Your task to perform on an android device: Go to Yahoo.com Image 0: 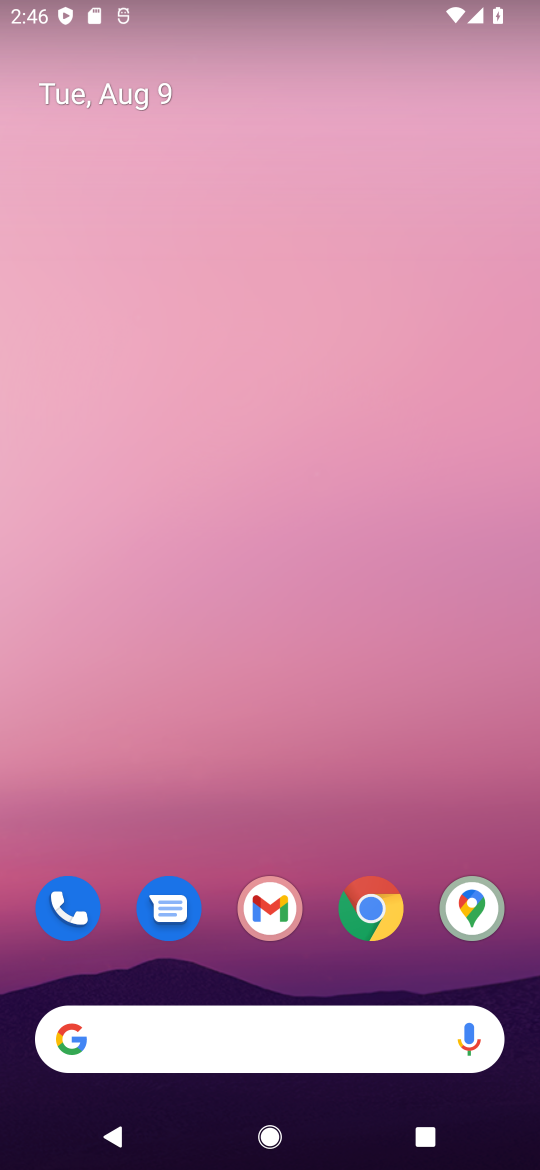
Step 0: drag from (342, 1000) to (246, 329)
Your task to perform on an android device: Go to Yahoo.com Image 1: 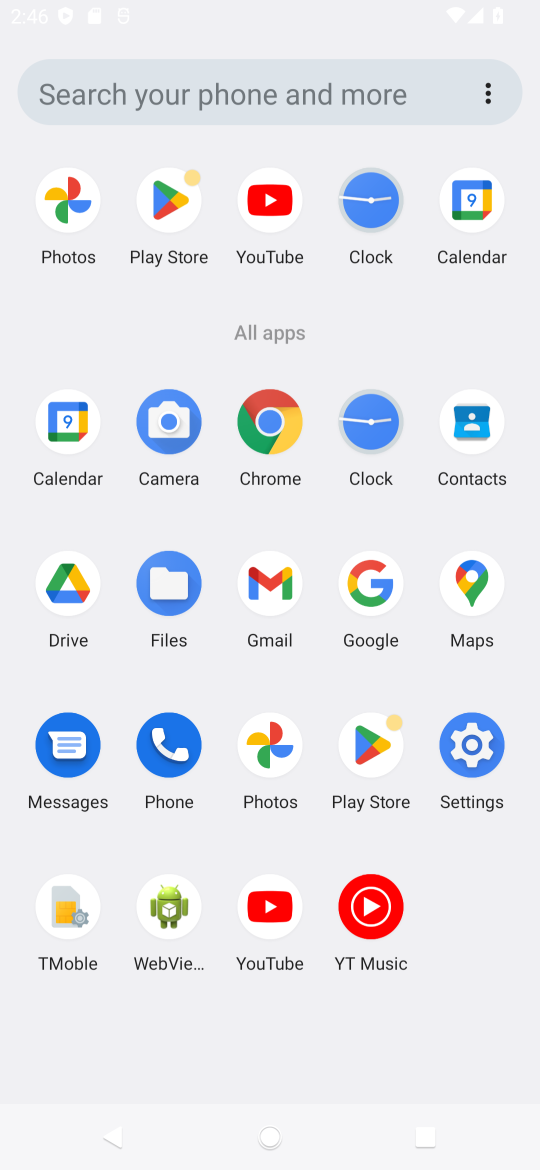
Step 1: click (281, 241)
Your task to perform on an android device: Go to Yahoo.com Image 2: 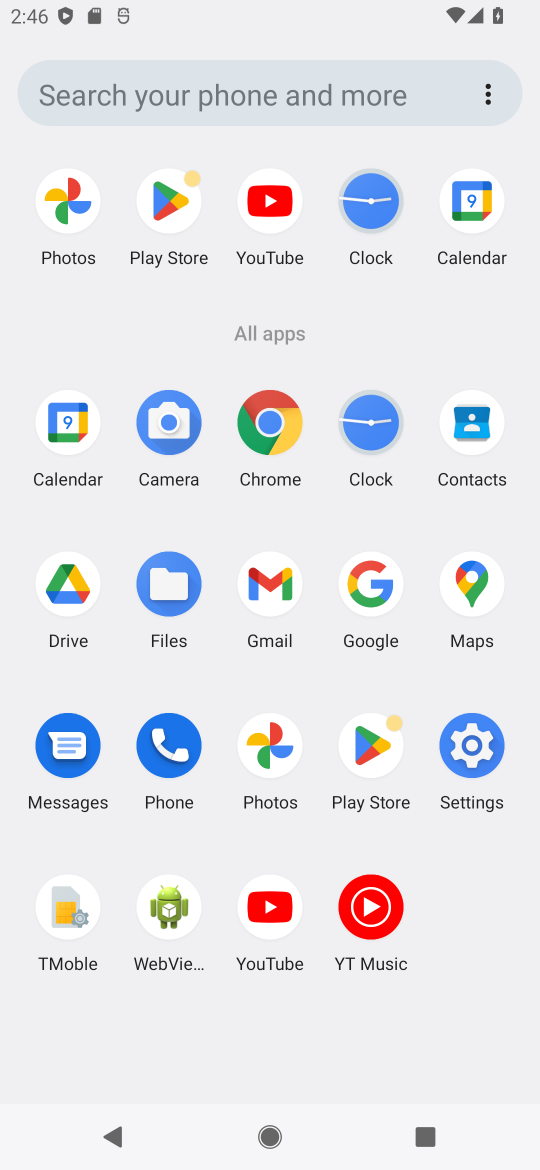
Step 2: drag from (291, 783) to (247, 444)
Your task to perform on an android device: Go to Yahoo.com Image 3: 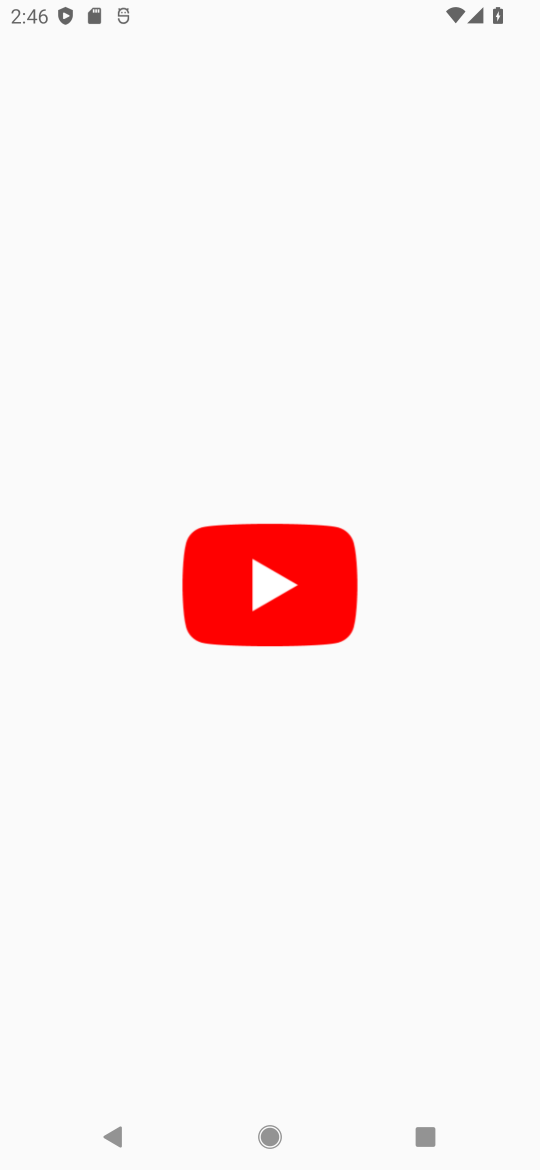
Step 3: press back button
Your task to perform on an android device: Go to Yahoo.com Image 4: 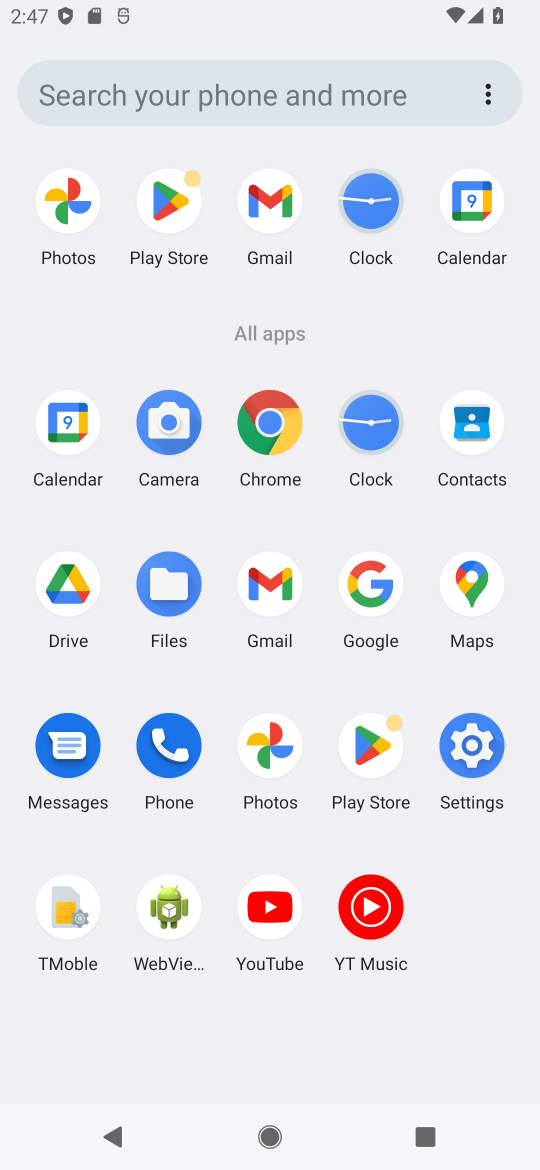
Step 4: click (241, 444)
Your task to perform on an android device: Go to Yahoo.com Image 5: 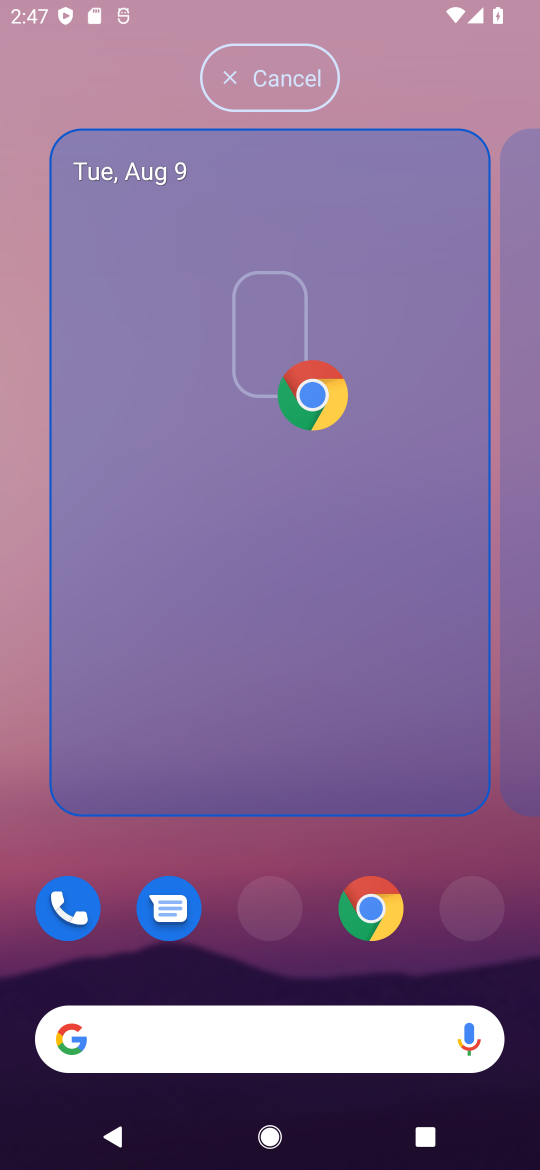
Step 5: click (286, 422)
Your task to perform on an android device: Go to Yahoo.com Image 6: 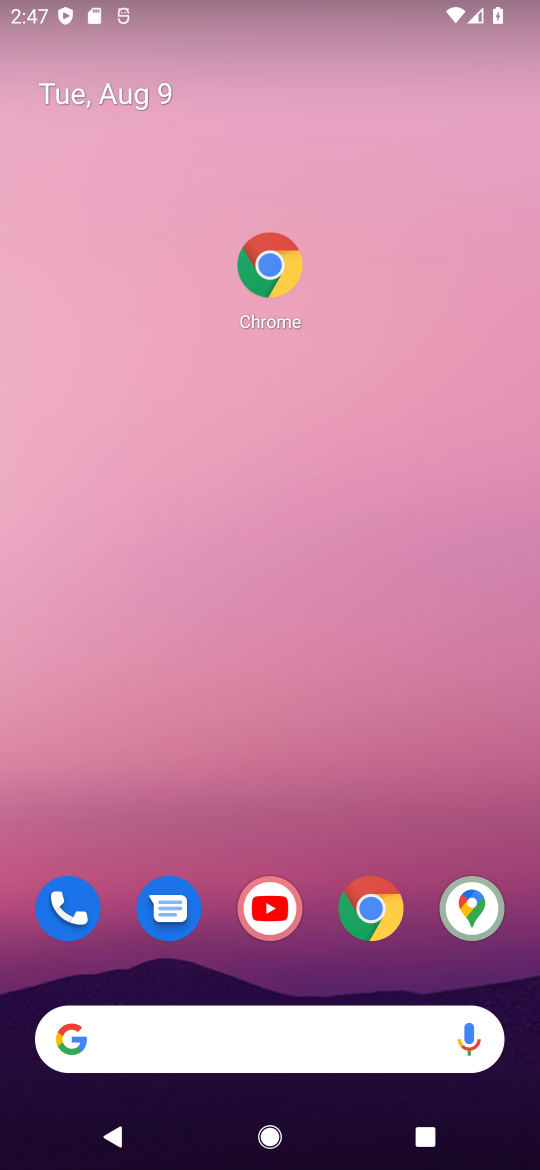
Step 6: click (373, 897)
Your task to perform on an android device: Go to Yahoo.com Image 7: 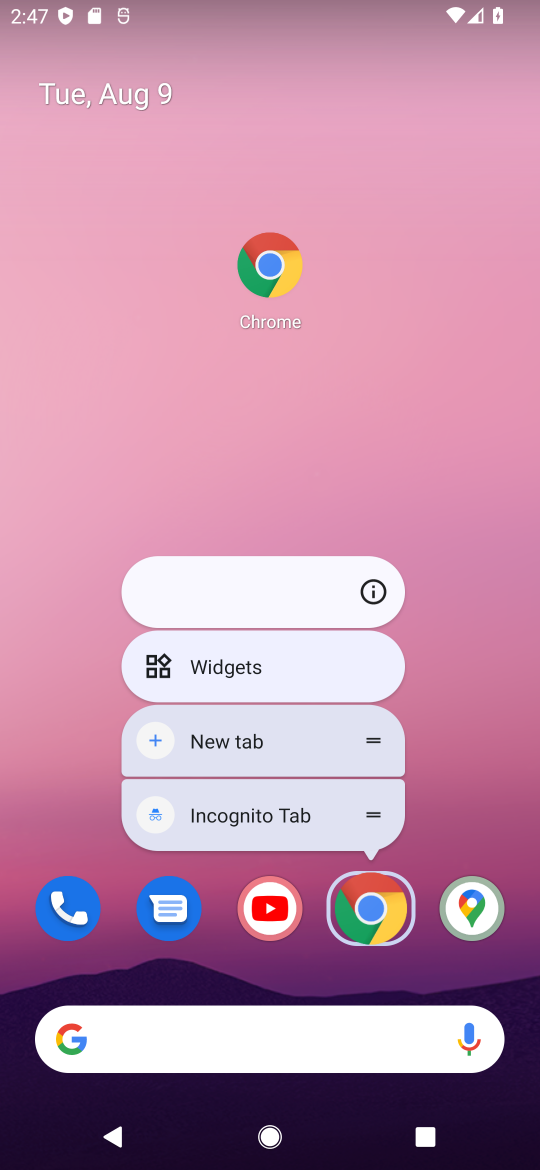
Step 7: click (364, 906)
Your task to perform on an android device: Go to Yahoo.com Image 8: 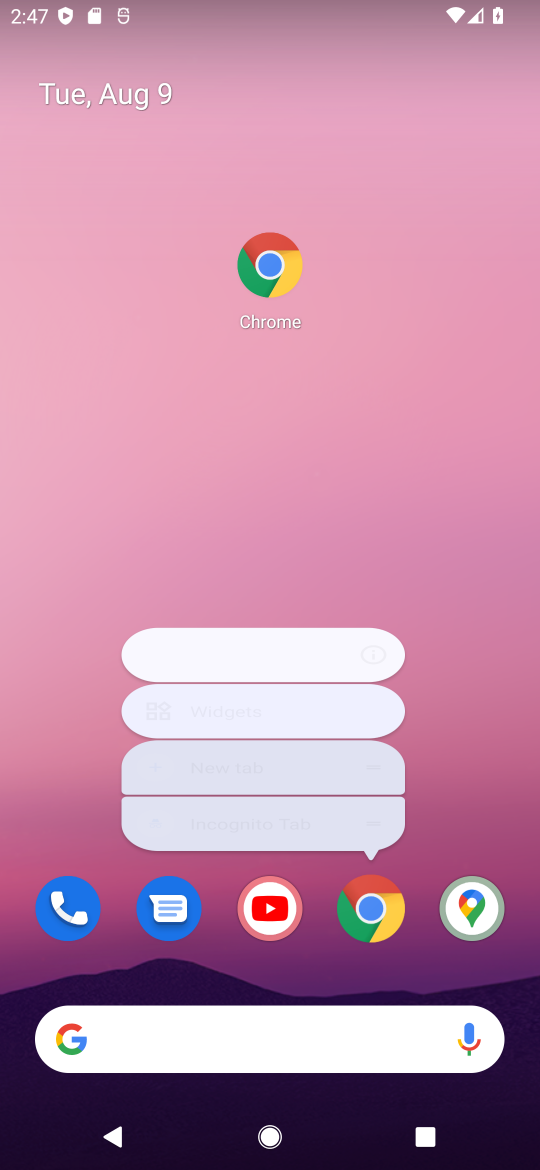
Step 8: click (364, 906)
Your task to perform on an android device: Go to Yahoo.com Image 9: 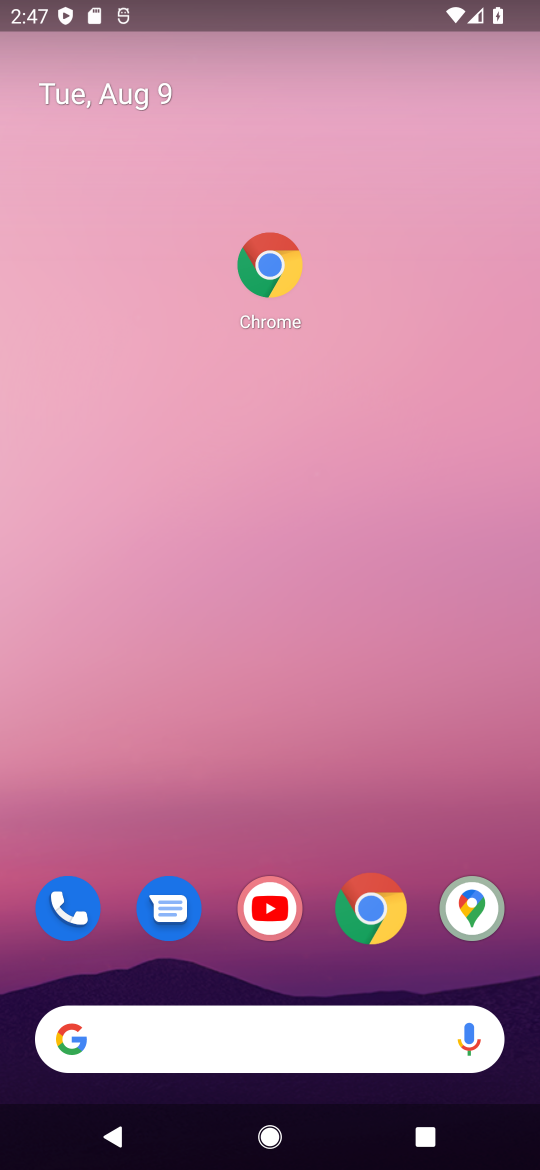
Step 9: click (364, 906)
Your task to perform on an android device: Go to Yahoo.com Image 10: 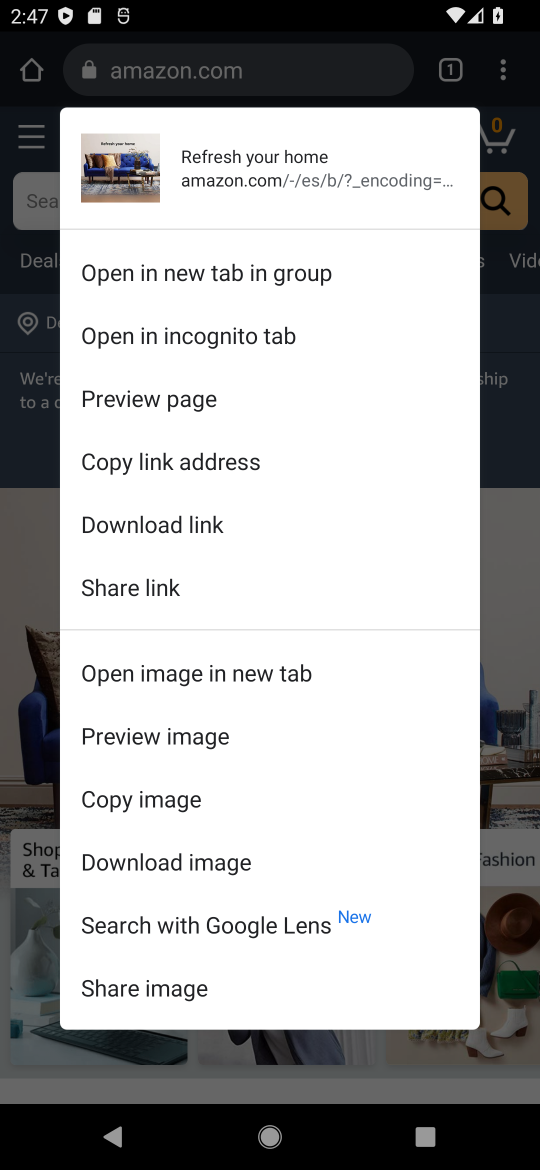
Step 10: click (171, 277)
Your task to perform on an android device: Go to Yahoo.com Image 11: 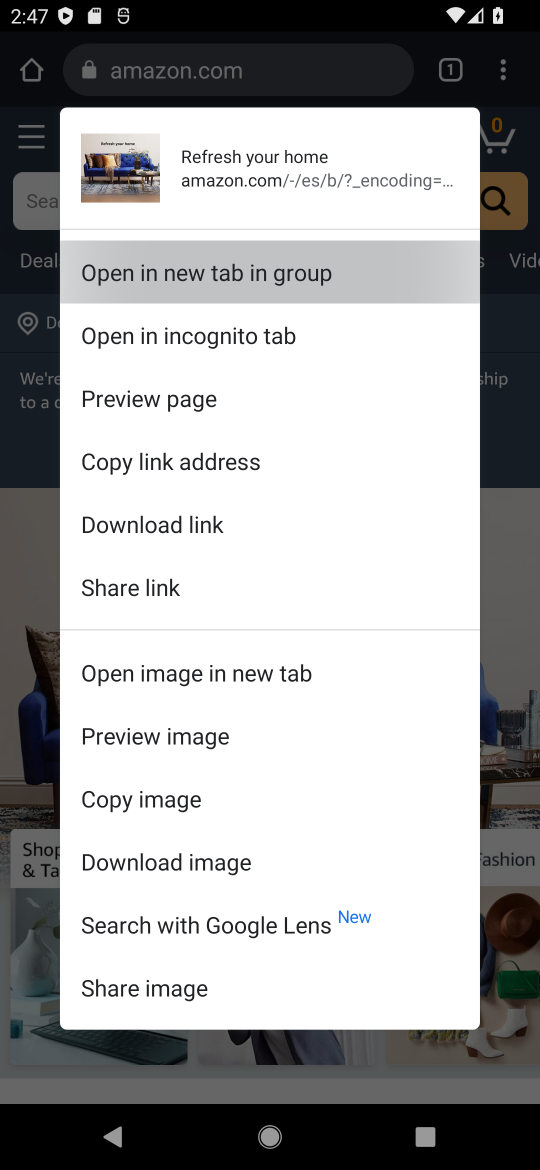
Step 11: click (174, 277)
Your task to perform on an android device: Go to Yahoo.com Image 12: 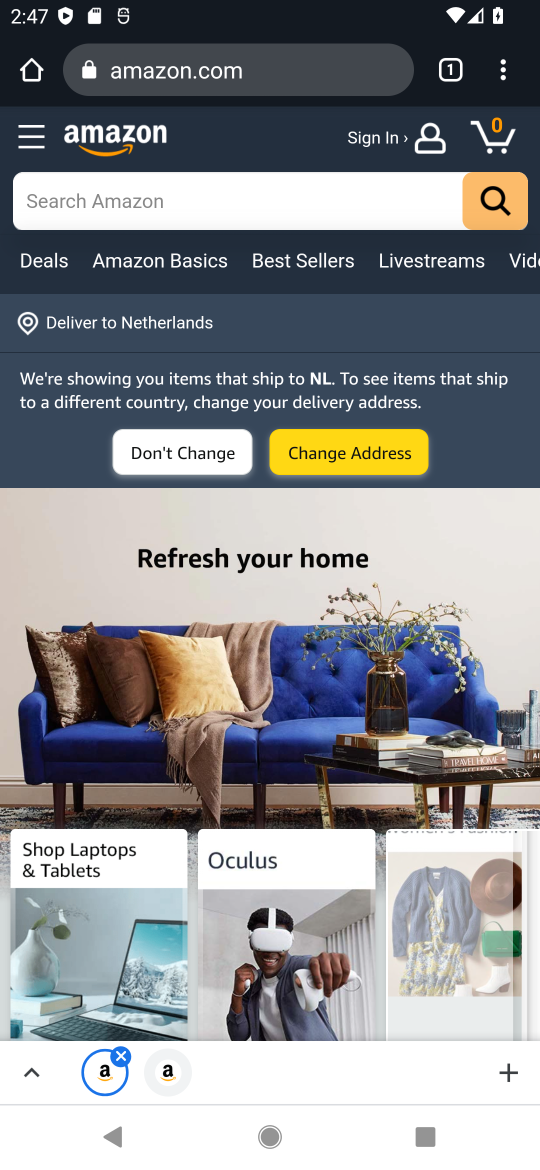
Step 12: click (181, 276)
Your task to perform on an android device: Go to Yahoo.com Image 13: 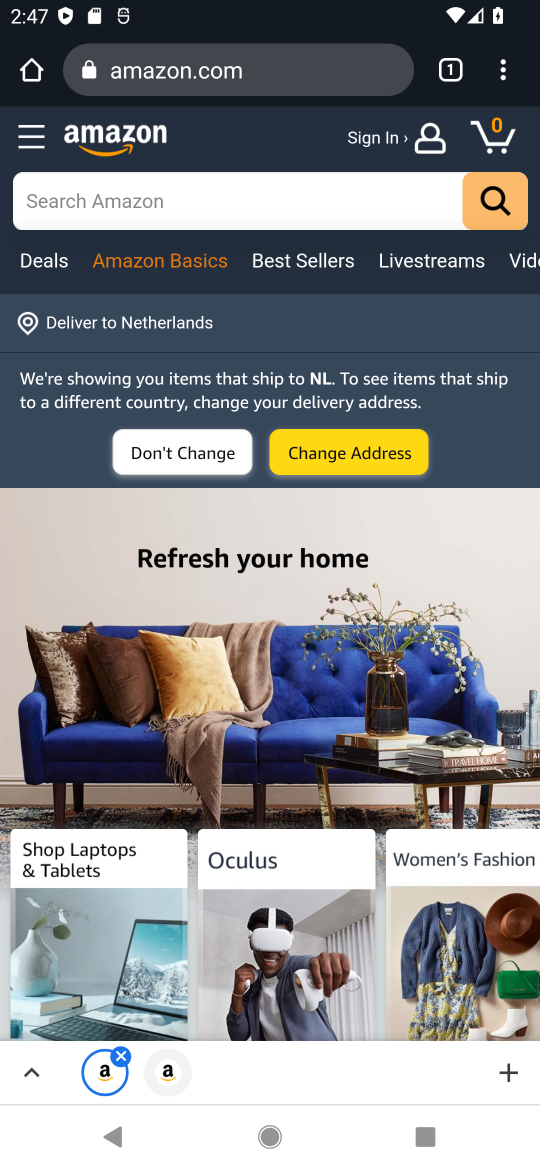
Step 13: click (91, 190)
Your task to perform on an android device: Go to Yahoo.com Image 14: 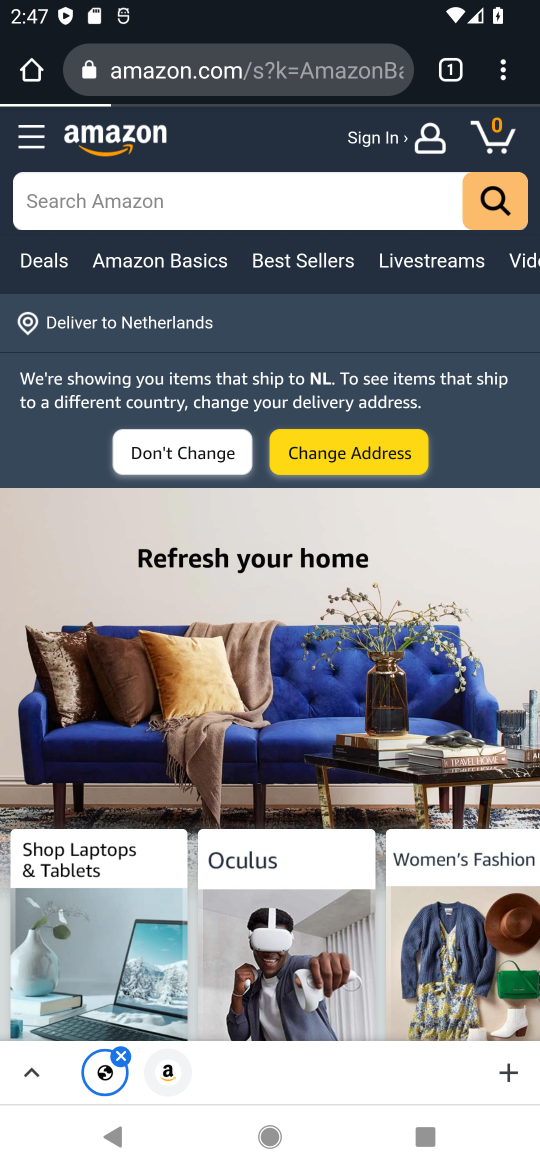
Step 14: drag from (498, 77) to (302, 138)
Your task to perform on an android device: Go to Yahoo.com Image 15: 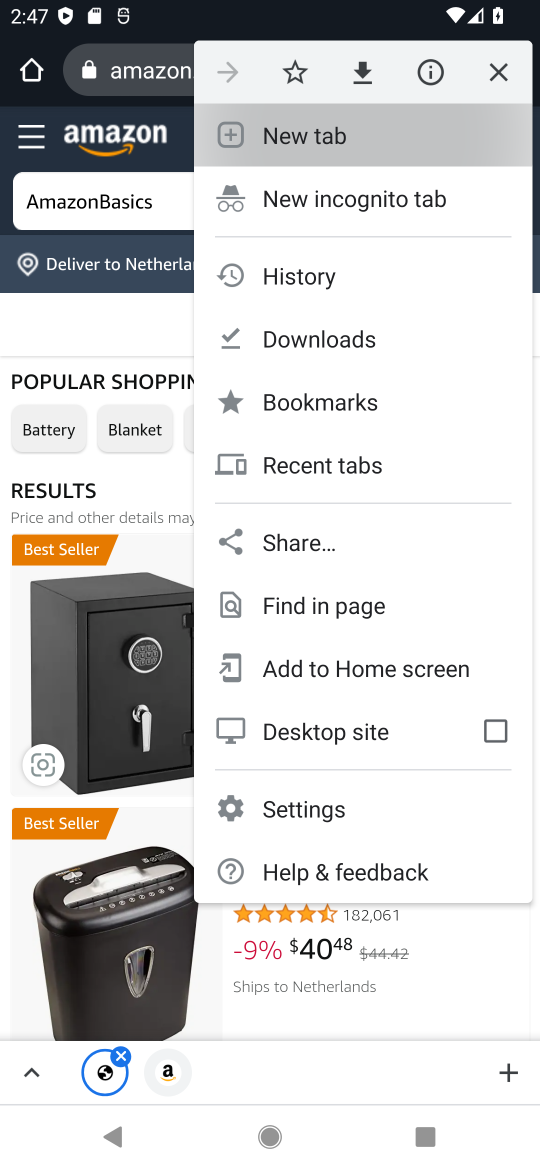
Step 15: click (302, 139)
Your task to perform on an android device: Go to Yahoo.com Image 16: 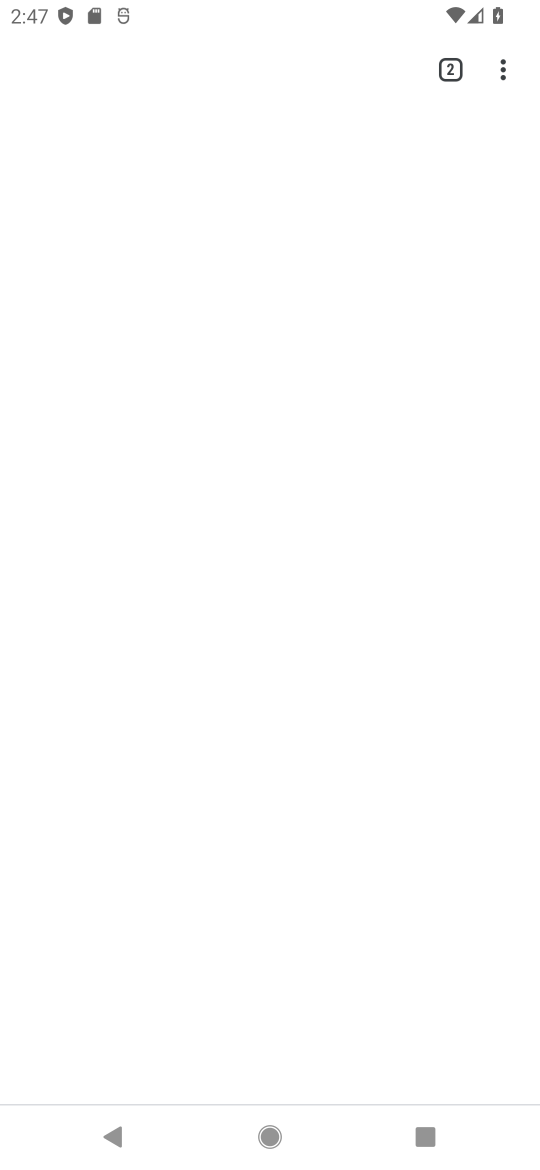
Step 16: click (304, 140)
Your task to perform on an android device: Go to Yahoo.com Image 17: 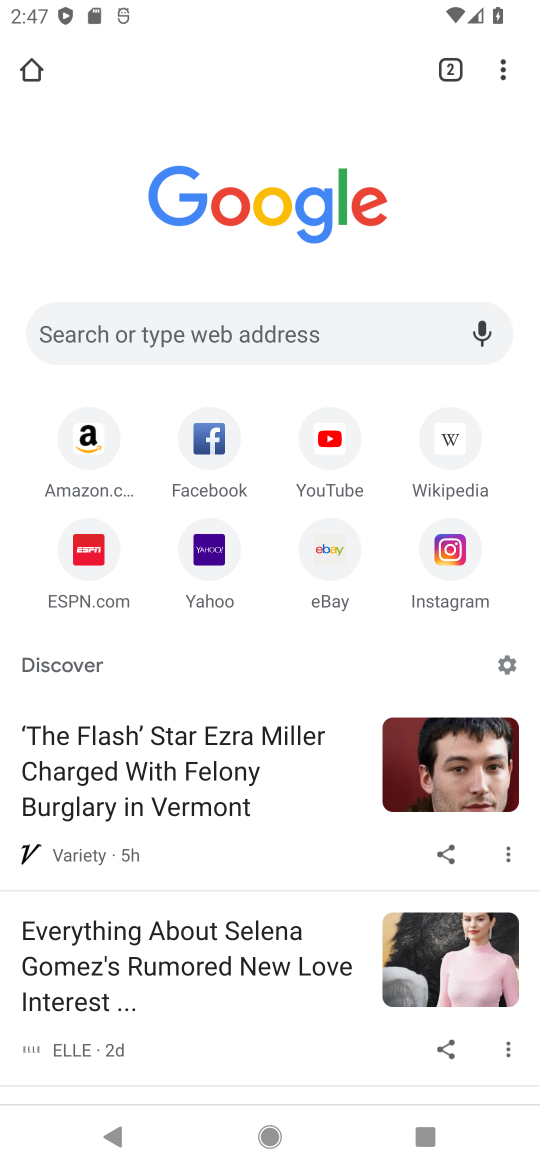
Step 17: click (214, 563)
Your task to perform on an android device: Go to Yahoo.com Image 18: 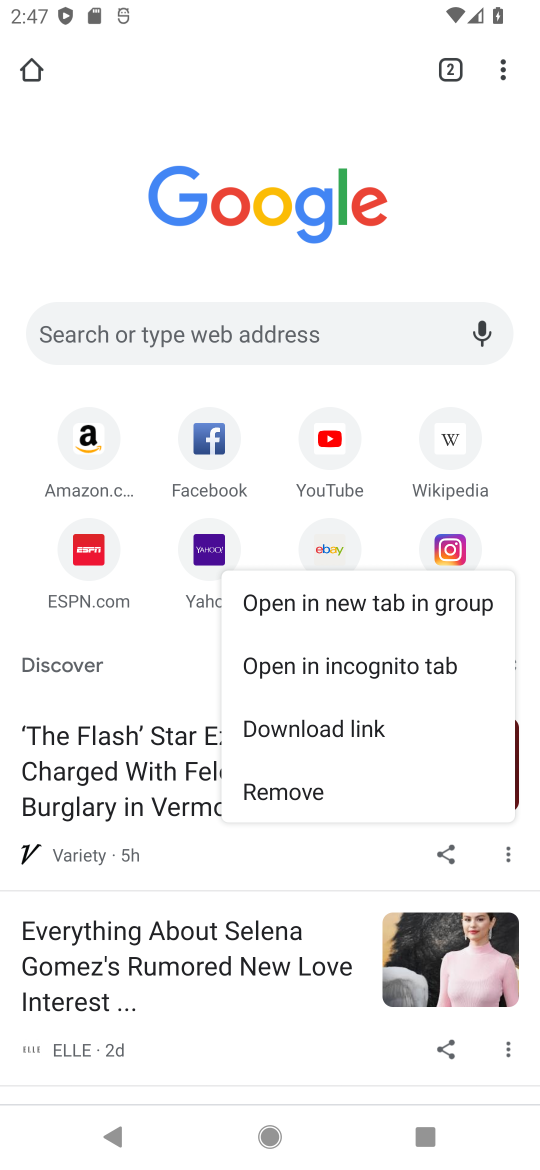
Step 18: click (209, 561)
Your task to perform on an android device: Go to Yahoo.com Image 19: 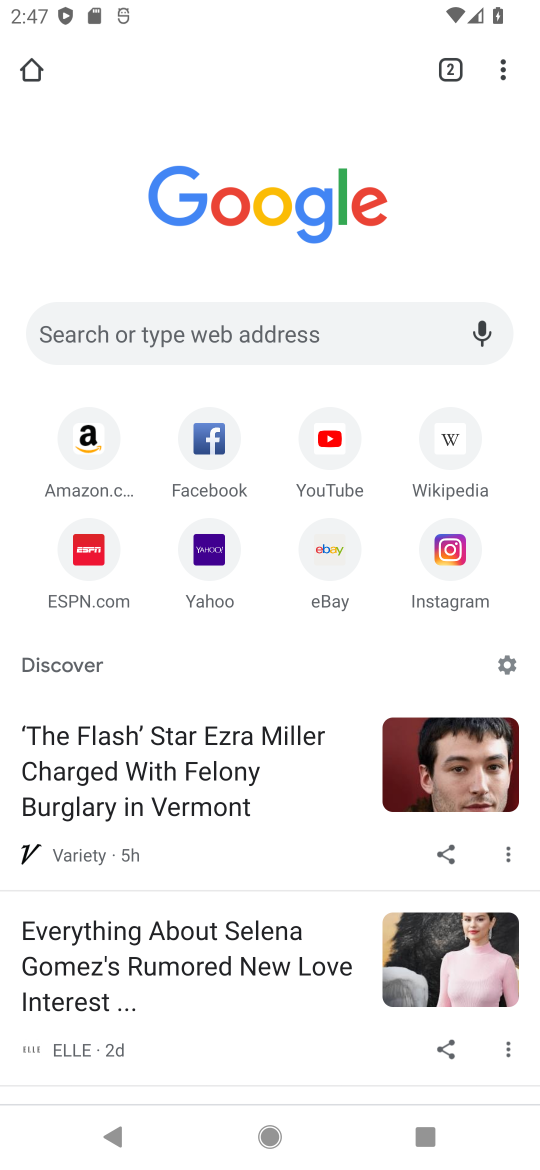
Step 19: click (207, 561)
Your task to perform on an android device: Go to Yahoo.com Image 20: 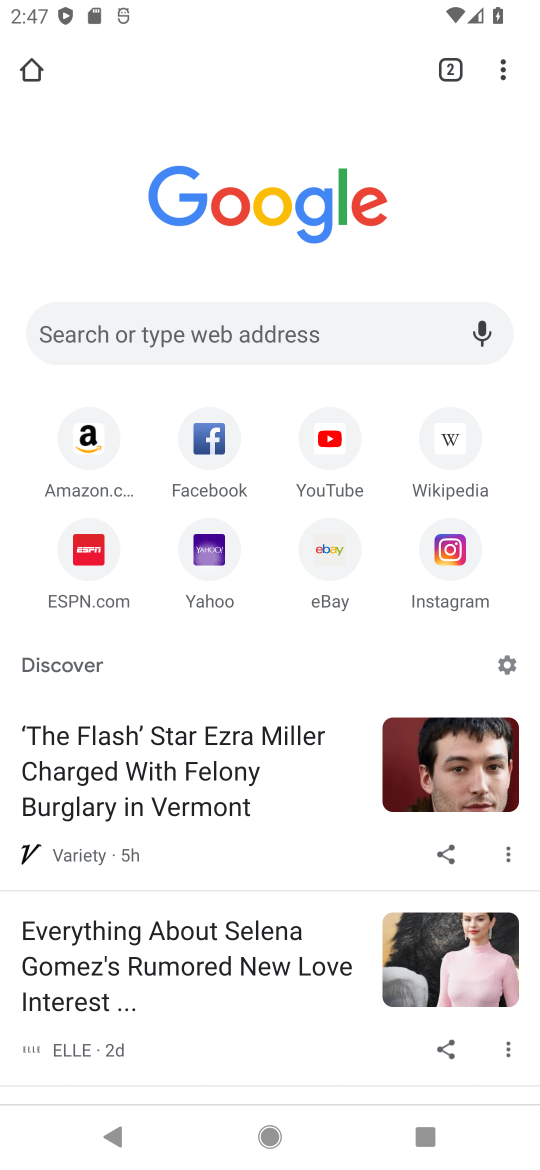
Step 20: click (206, 563)
Your task to perform on an android device: Go to Yahoo.com Image 21: 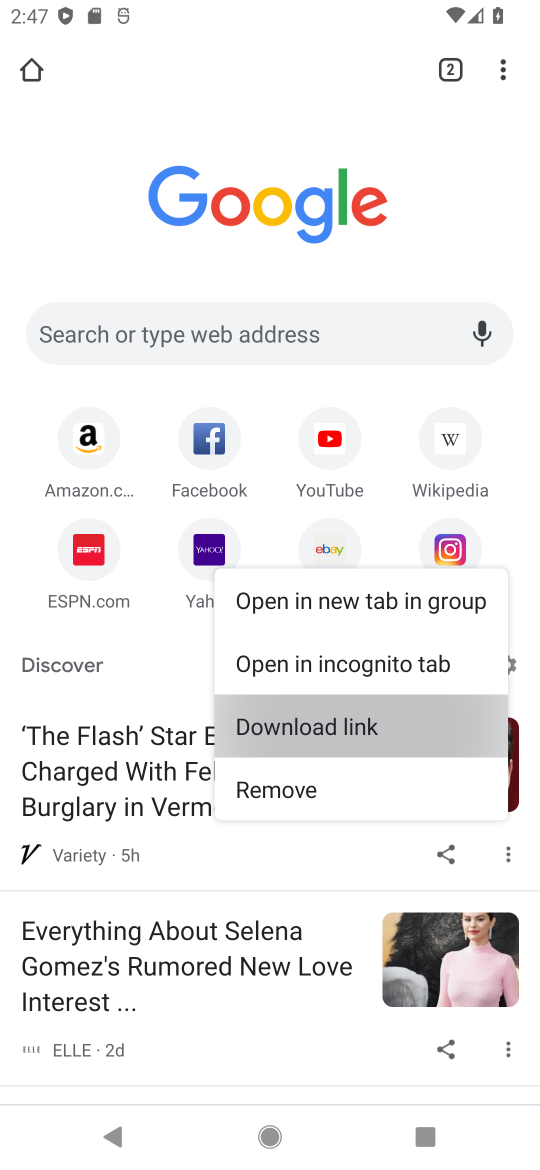
Step 21: click (210, 560)
Your task to perform on an android device: Go to Yahoo.com Image 22: 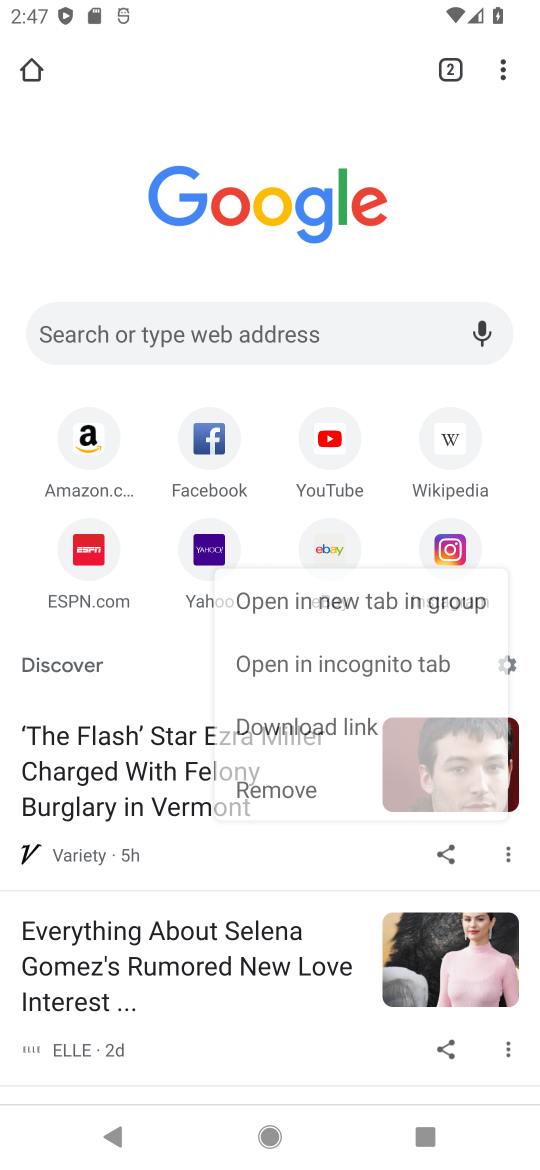
Step 22: click (210, 560)
Your task to perform on an android device: Go to Yahoo.com Image 23: 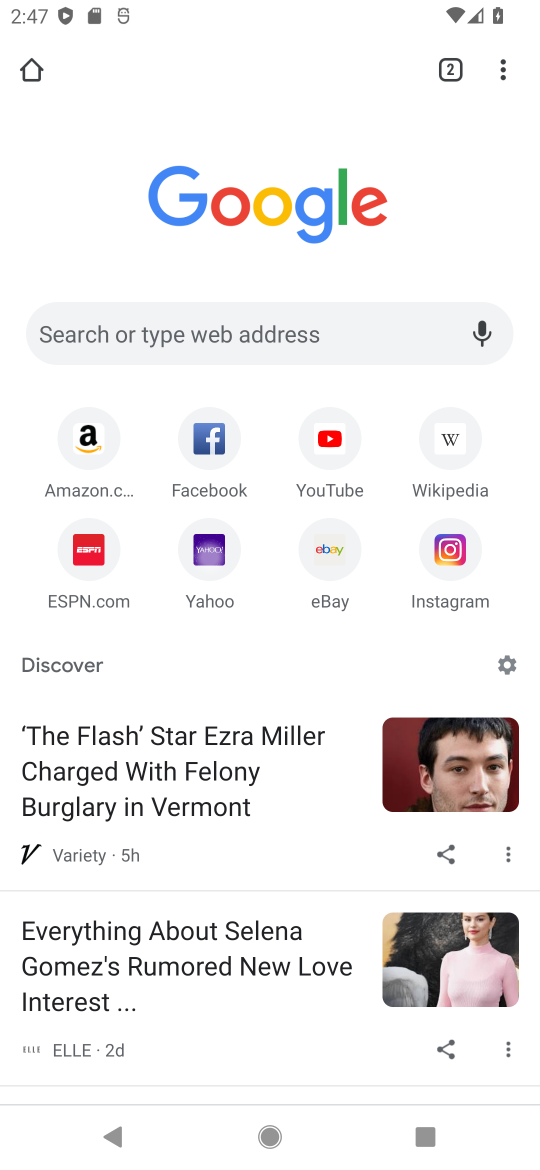
Step 23: click (210, 560)
Your task to perform on an android device: Go to Yahoo.com Image 24: 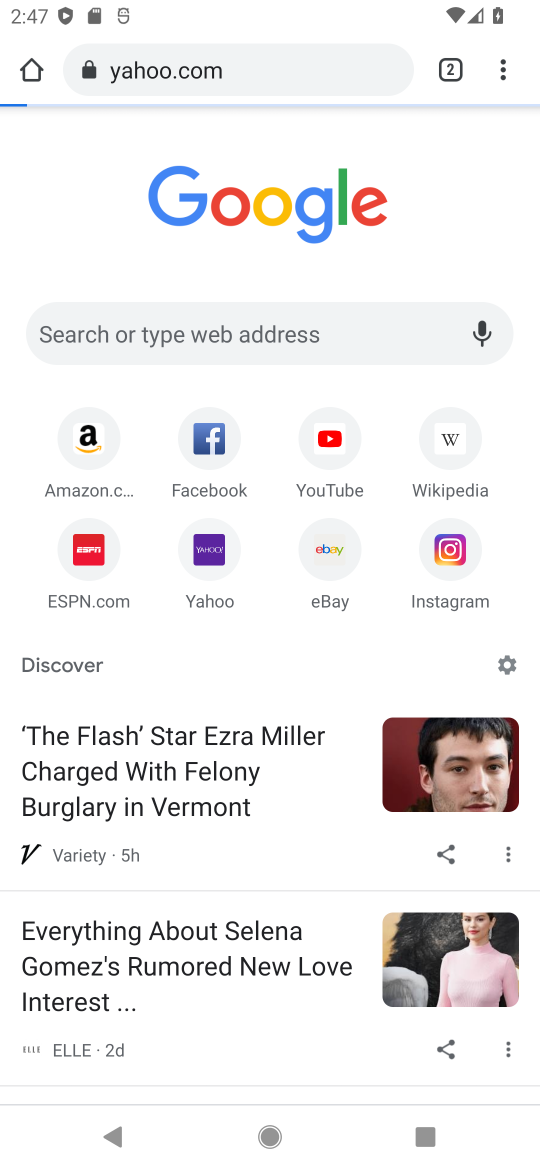
Step 24: click (210, 560)
Your task to perform on an android device: Go to Yahoo.com Image 25: 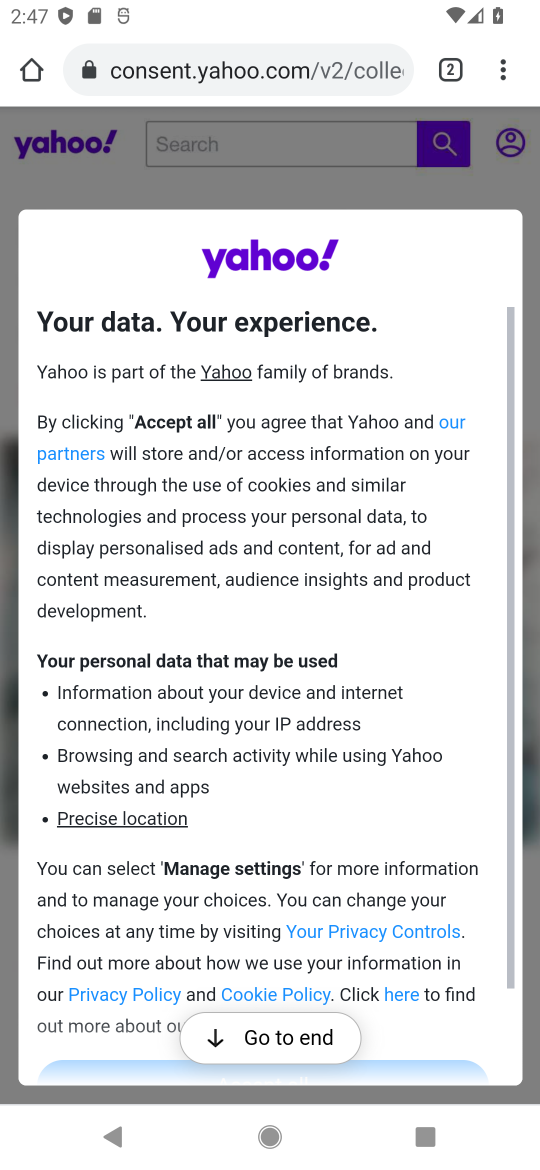
Step 25: task complete